Your task to perform on an android device: Open the map Image 0: 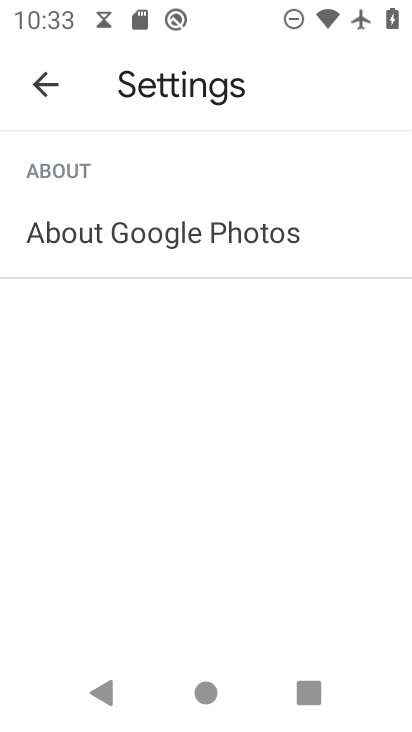
Step 0: press back button
Your task to perform on an android device: Open the map Image 1: 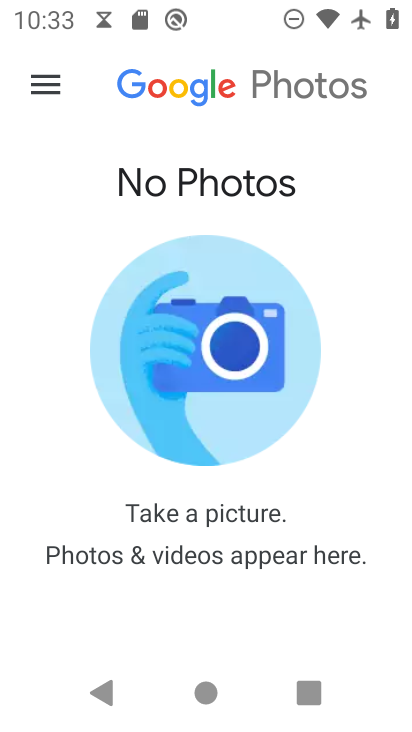
Step 1: press home button
Your task to perform on an android device: Open the map Image 2: 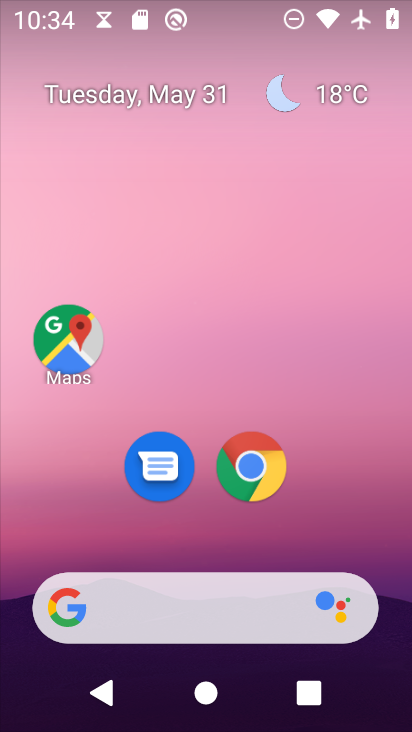
Step 2: click (58, 341)
Your task to perform on an android device: Open the map Image 3: 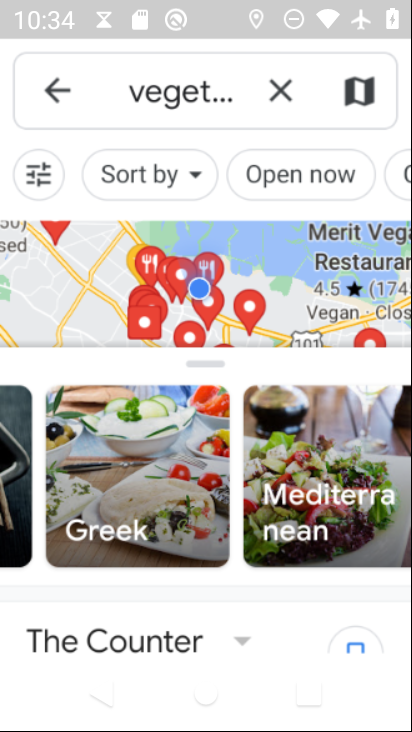
Step 3: click (280, 87)
Your task to perform on an android device: Open the map Image 4: 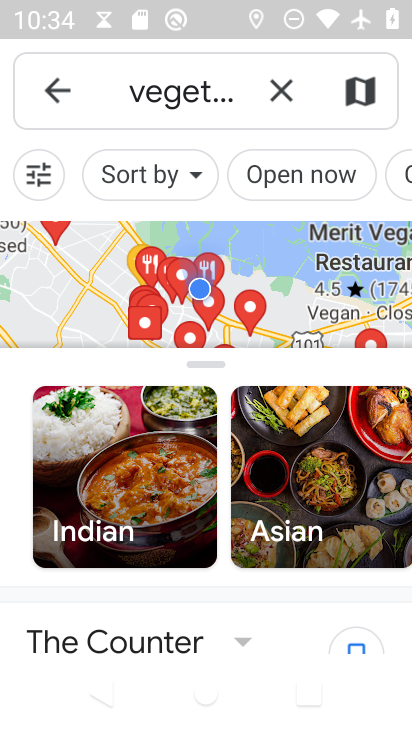
Step 4: click (270, 87)
Your task to perform on an android device: Open the map Image 5: 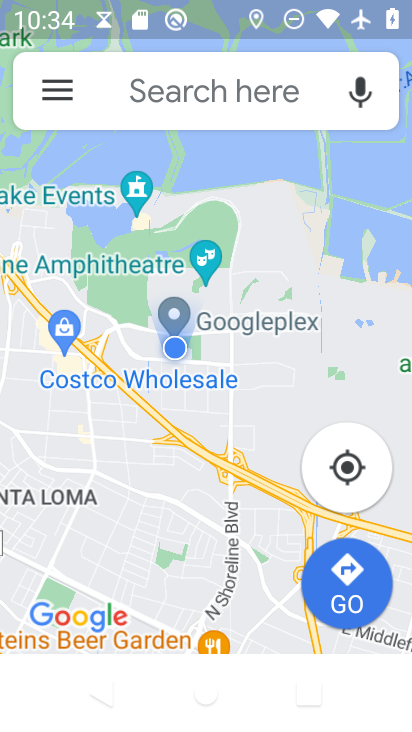
Step 5: task complete